Your task to perform on an android device: Open settings Image 0: 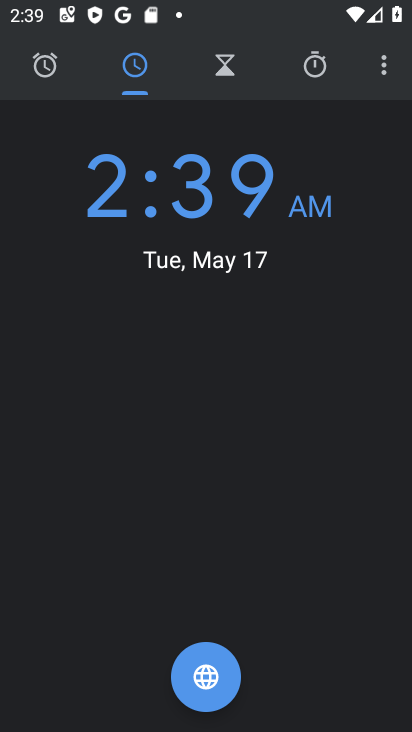
Step 0: press back button
Your task to perform on an android device: Open settings Image 1: 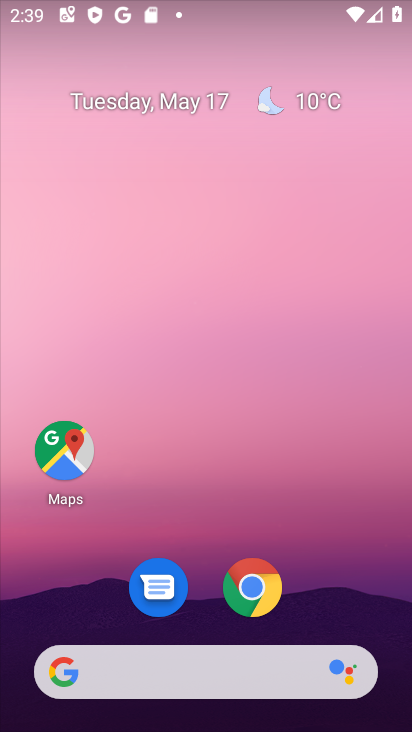
Step 1: drag from (305, 580) to (316, 57)
Your task to perform on an android device: Open settings Image 2: 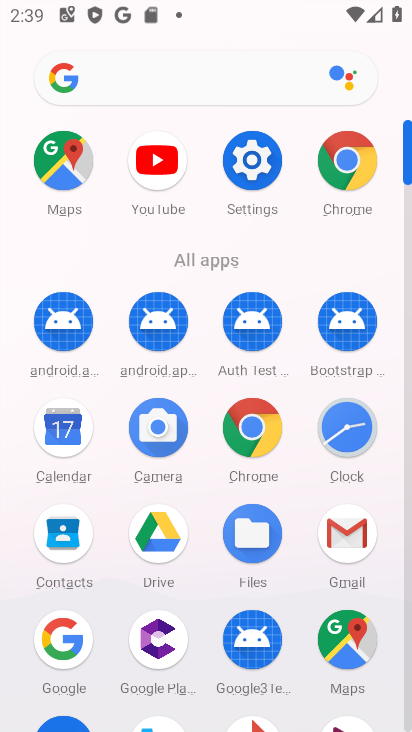
Step 2: click (250, 156)
Your task to perform on an android device: Open settings Image 3: 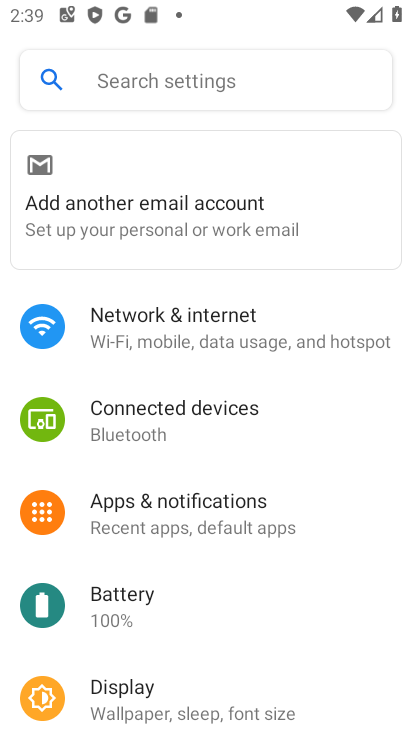
Step 3: task complete